Your task to perform on an android device: open the mobile data screen to see how much data has been used Image 0: 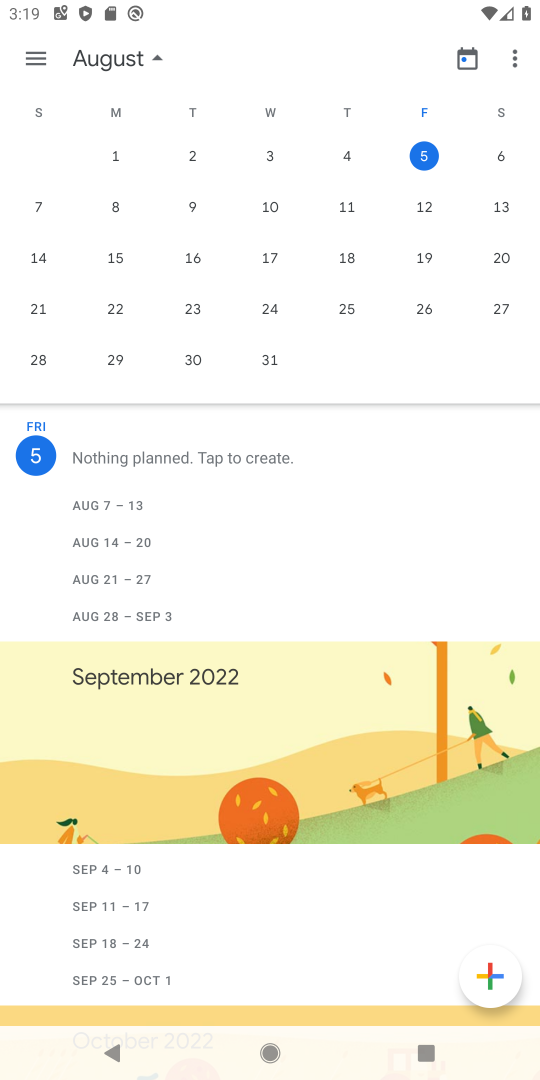
Step 0: press home button
Your task to perform on an android device: open the mobile data screen to see how much data has been used Image 1: 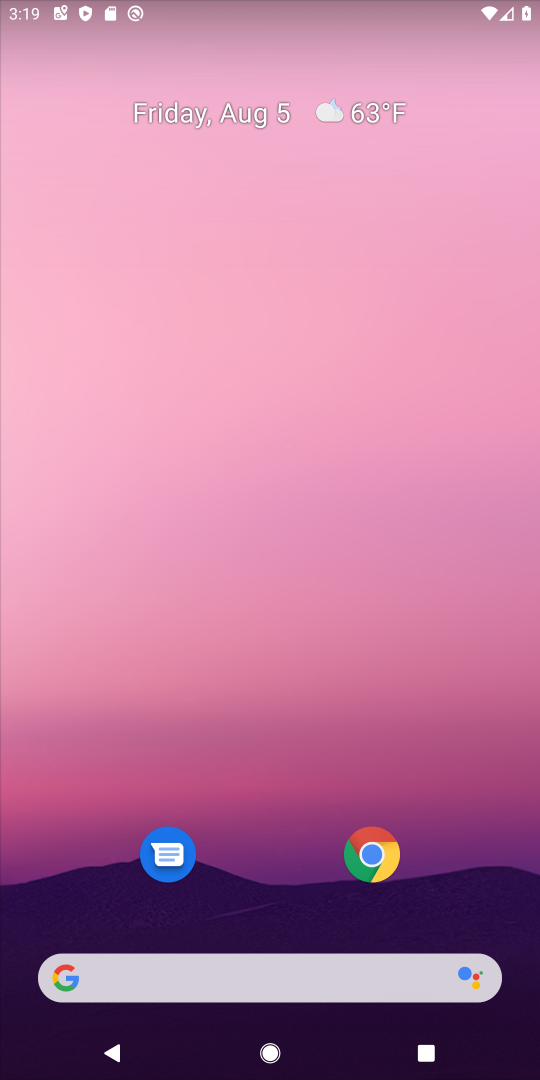
Step 1: drag from (46, 1019) to (362, 158)
Your task to perform on an android device: open the mobile data screen to see how much data has been used Image 2: 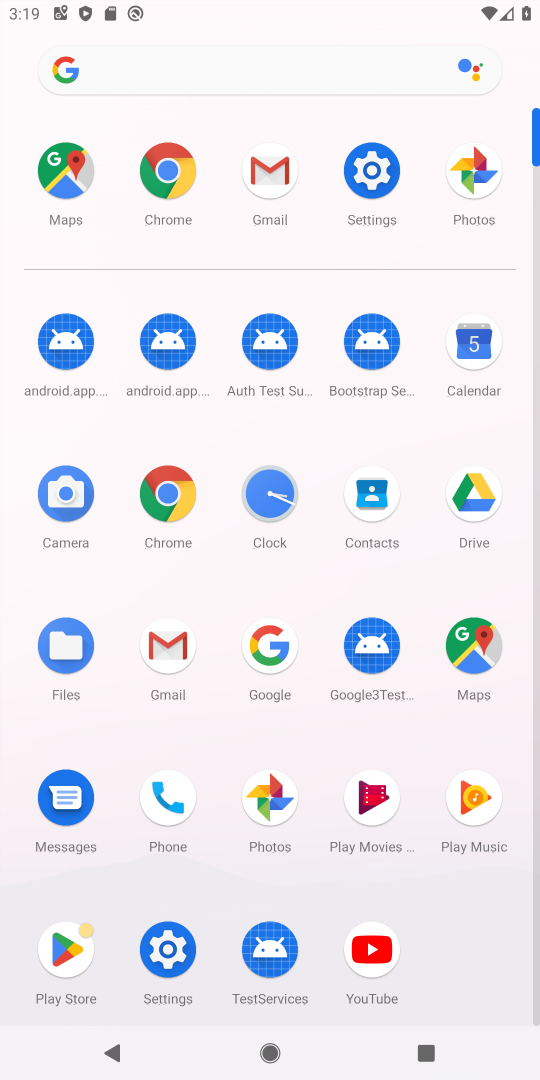
Step 2: click (185, 959)
Your task to perform on an android device: open the mobile data screen to see how much data has been used Image 3: 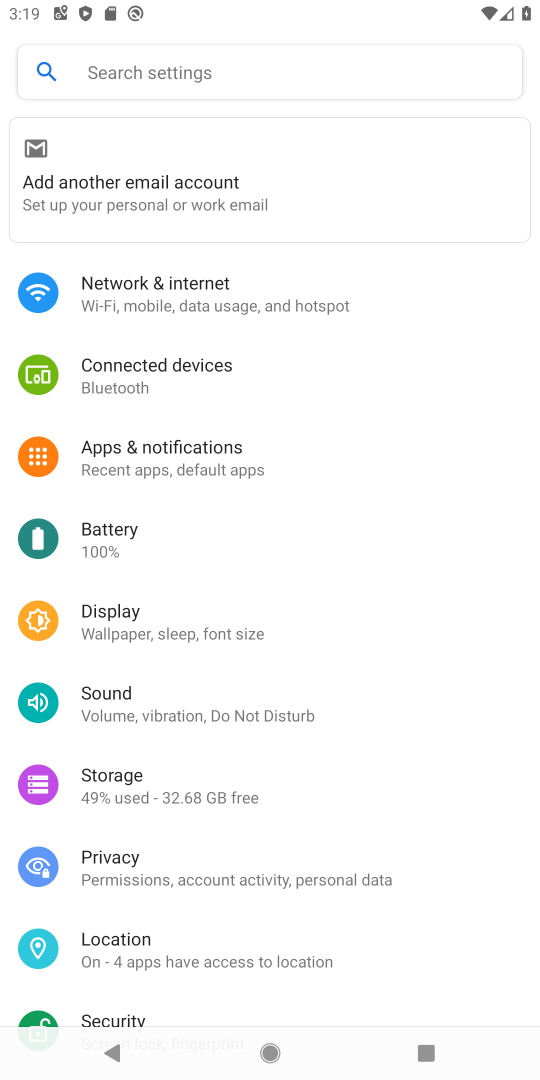
Step 3: click (154, 306)
Your task to perform on an android device: open the mobile data screen to see how much data has been used Image 4: 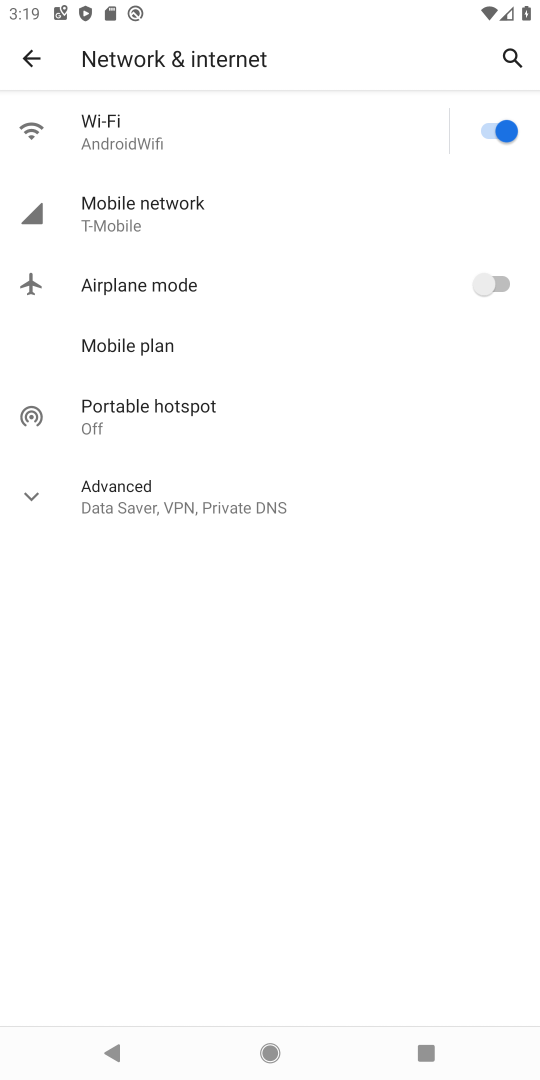
Step 4: click (149, 216)
Your task to perform on an android device: open the mobile data screen to see how much data has been used Image 5: 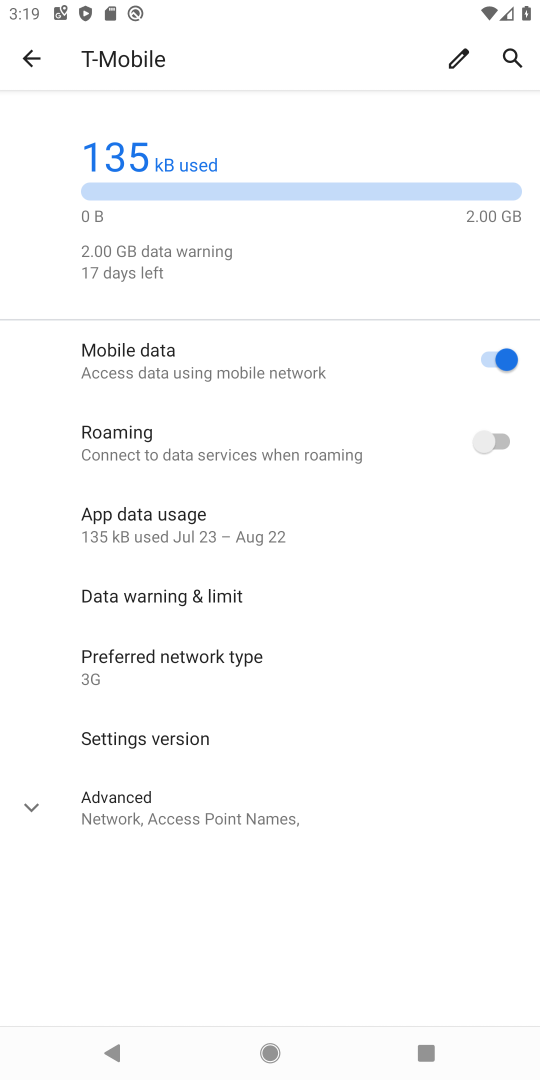
Step 5: task complete